Your task to perform on an android device: Open my contact list Image 0: 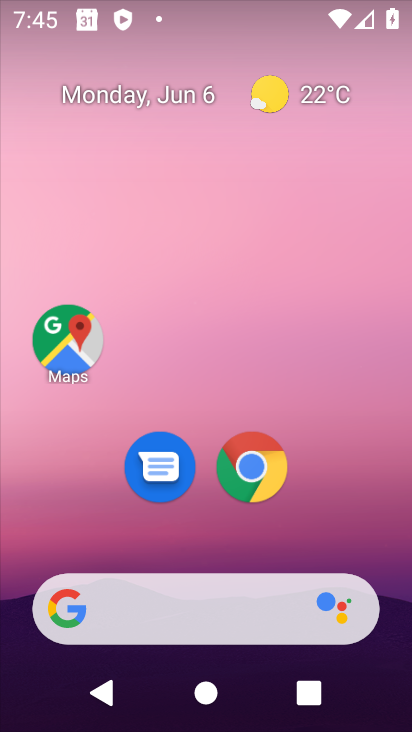
Step 0: drag from (382, 485) to (387, 151)
Your task to perform on an android device: Open my contact list Image 1: 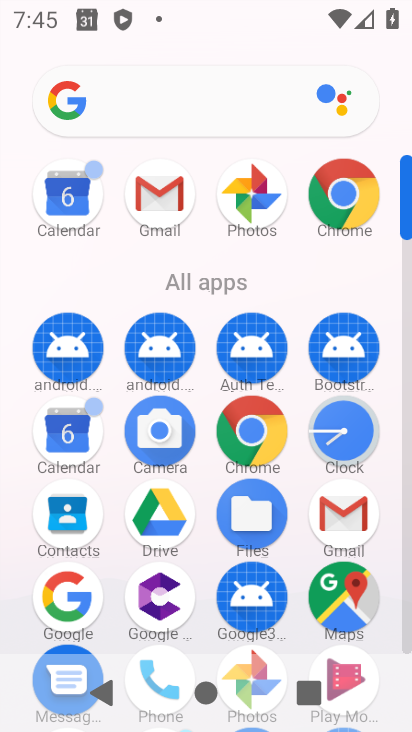
Step 1: click (67, 518)
Your task to perform on an android device: Open my contact list Image 2: 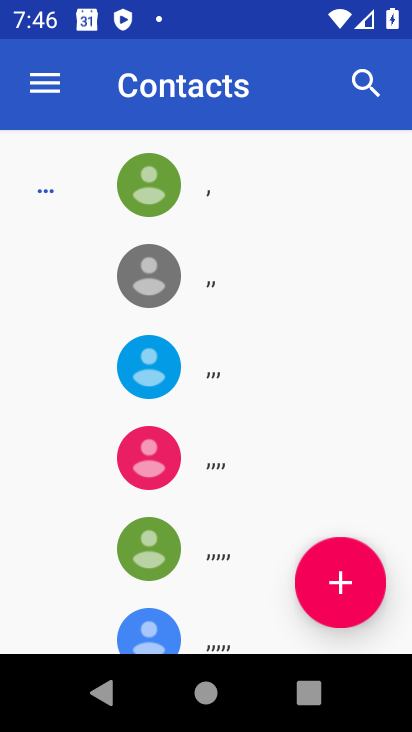
Step 2: task complete